Your task to perform on an android device: Show me the alarms in the clock app Image 0: 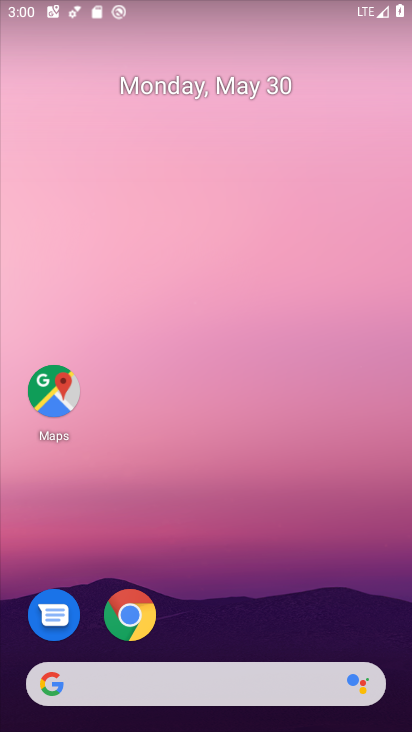
Step 0: drag from (249, 587) to (228, 58)
Your task to perform on an android device: Show me the alarms in the clock app Image 1: 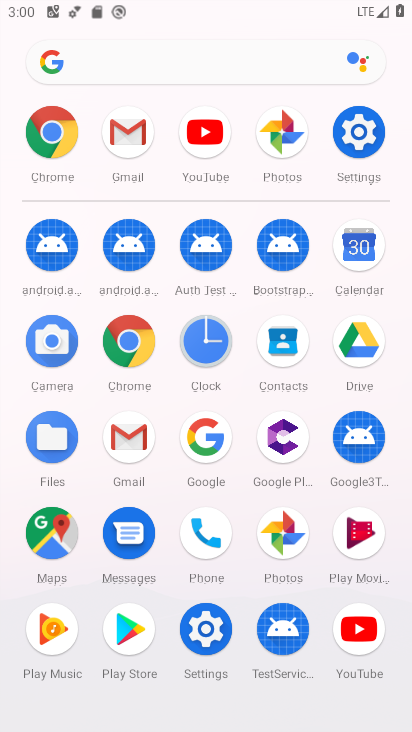
Step 1: click (211, 341)
Your task to perform on an android device: Show me the alarms in the clock app Image 2: 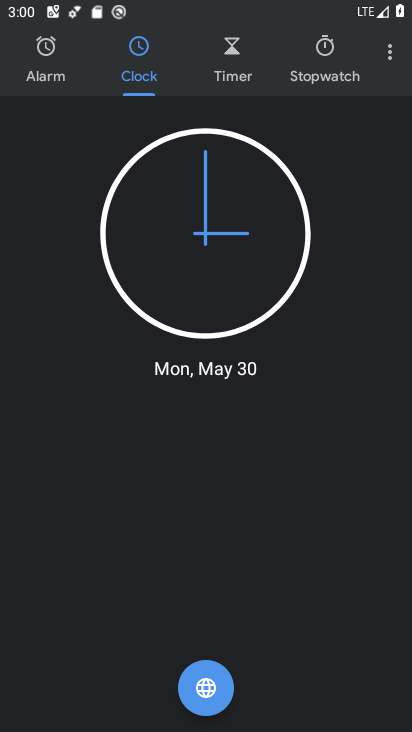
Step 2: click (50, 63)
Your task to perform on an android device: Show me the alarms in the clock app Image 3: 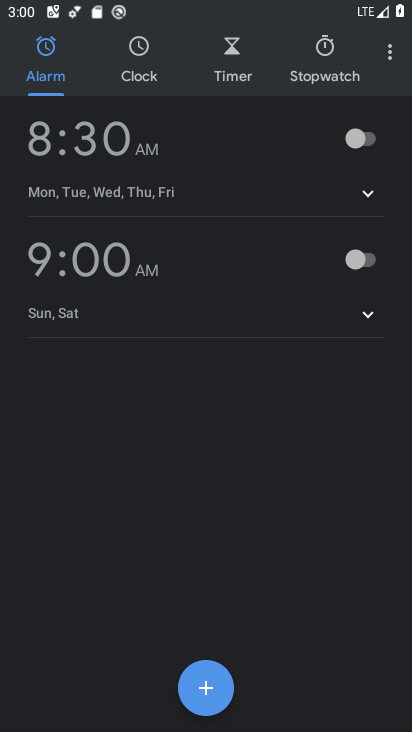
Step 3: task complete